Your task to perform on an android device: see sites visited before in the chrome app Image 0: 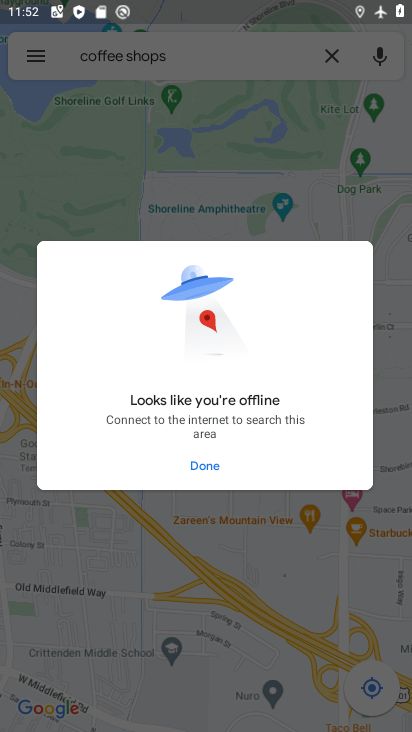
Step 0: press home button
Your task to perform on an android device: see sites visited before in the chrome app Image 1: 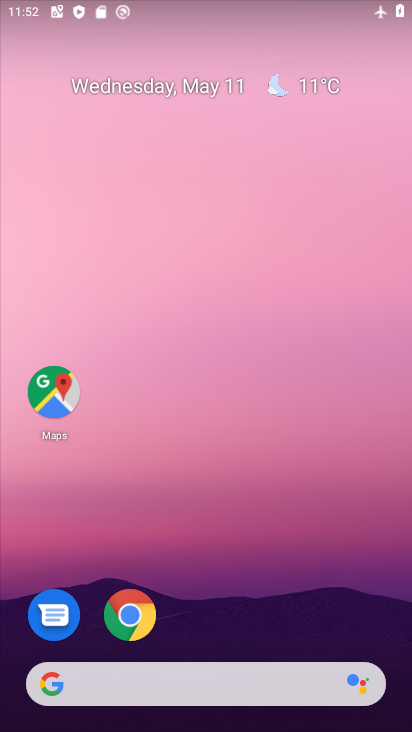
Step 1: click (127, 613)
Your task to perform on an android device: see sites visited before in the chrome app Image 2: 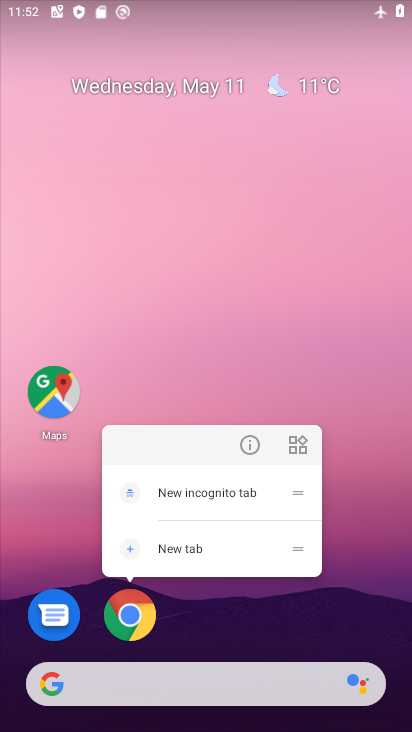
Step 2: click (127, 613)
Your task to perform on an android device: see sites visited before in the chrome app Image 3: 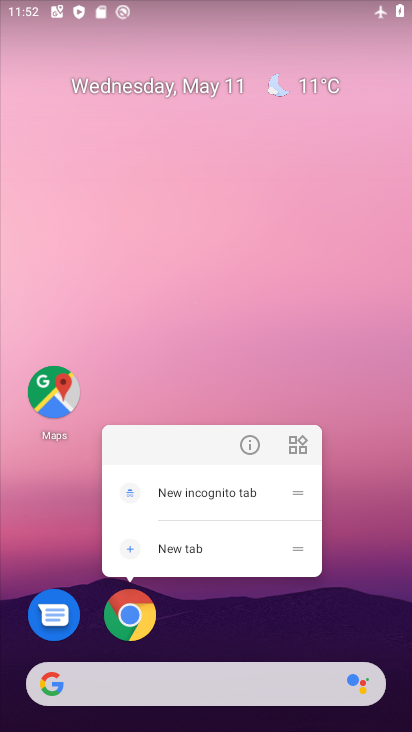
Step 3: click (137, 612)
Your task to perform on an android device: see sites visited before in the chrome app Image 4: 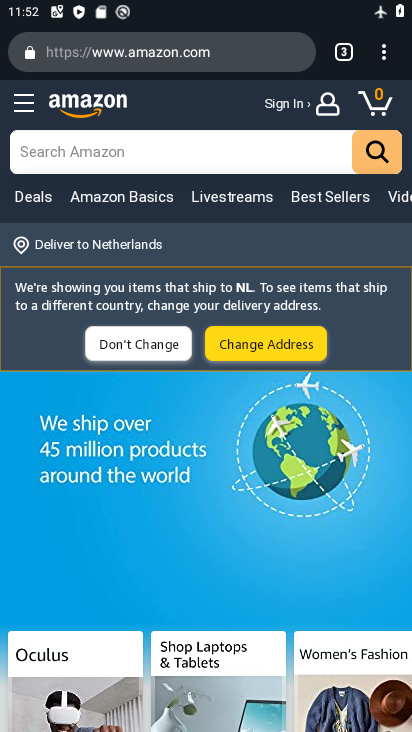
Step 4: task complete